Your task to perform on an android device: Open Chrome and go to settings Image 0: 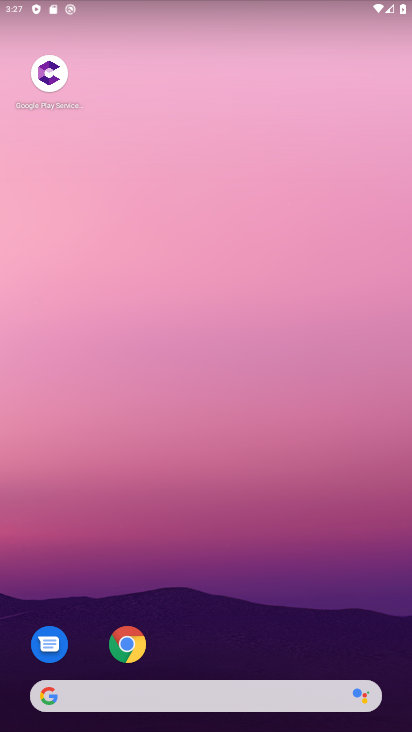
Step 0: click (129, 646)
Your task to perform on an android device: Open Chrome and go to settings Image 1: 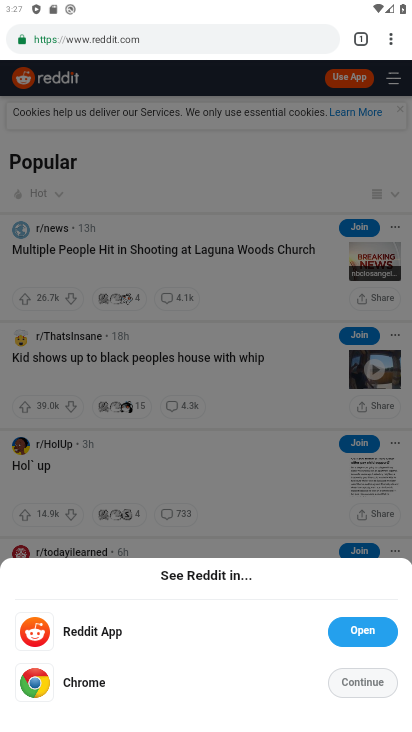
Step 1: click (392, 36)
Your task to perform on an android device: Open Chrome and go to settings Image 2: 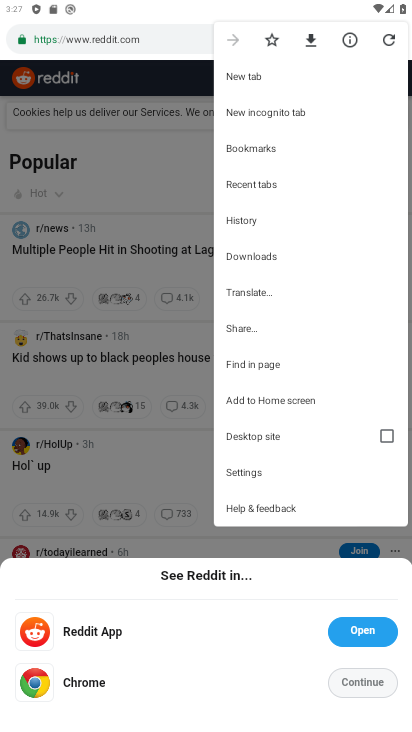
Step 2: click (293, 470)
Your task to perform on an android device: Open Chrome and go to settings Image 3: 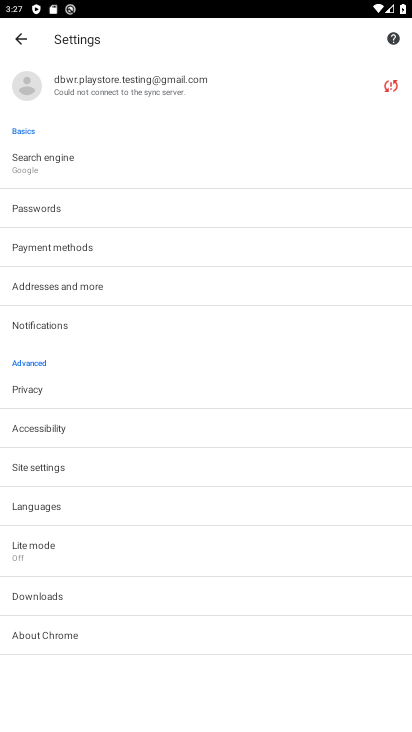
Step 3: task complete